Your task to perform on an android device: Show me recent news Image 0: 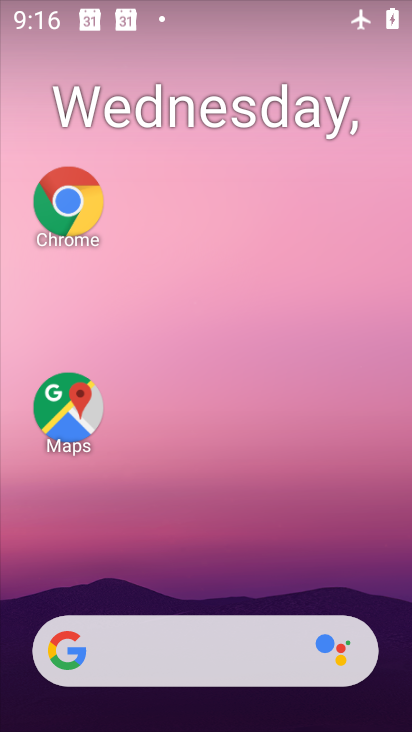
Step 0: click (164, 665)
Your task to perform on an android device: Show me recent news Image 1: 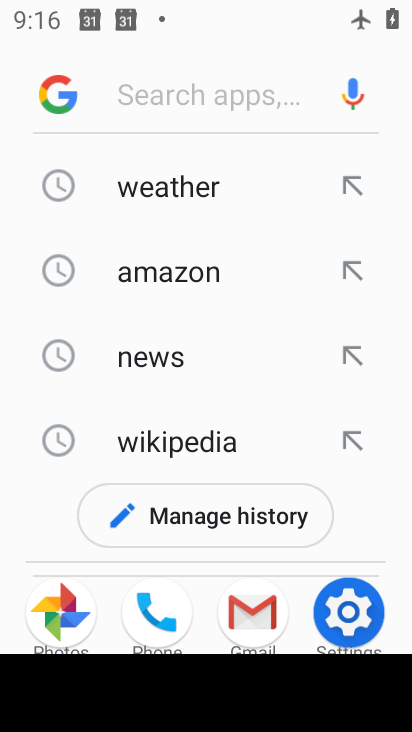
Step 1: click (170, 360)
Your task to perform on an android device: Show me recent news Image 2: 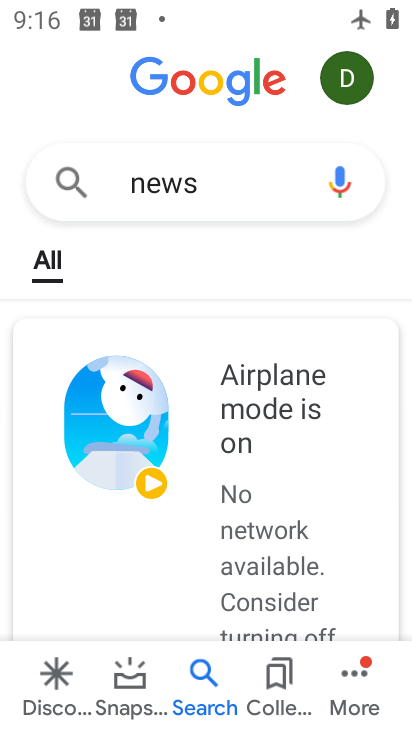
Step 2: task complete